Your task to perform on an android device: turn off javascript in the chrome app Image 0: 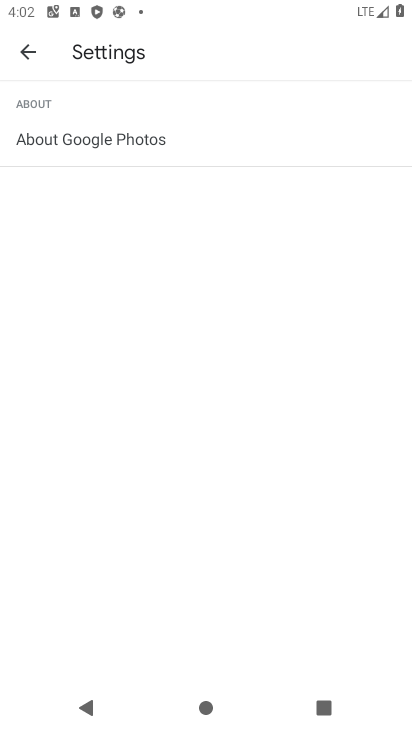
Step 0: press home button
Your task to perform on an android device: turn off javascript in the chrome app Image 1: 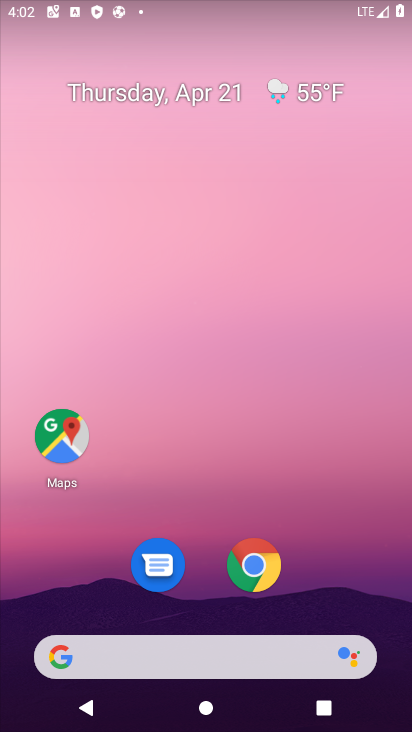
Step 1: click (254, 558)
Your task to perform on an android device: turn off javascript in the chrome app Image 2: 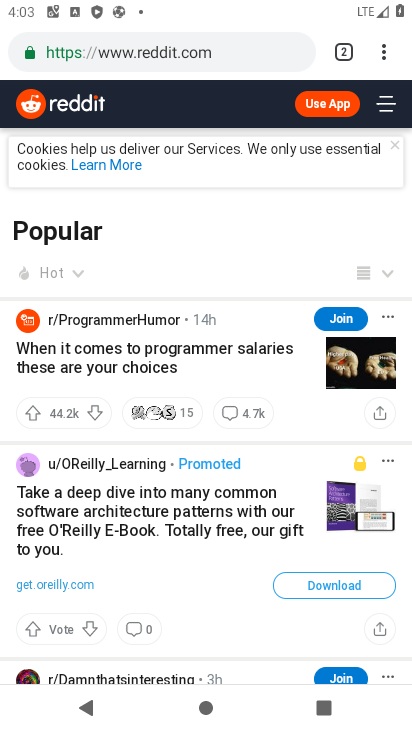
Step 2: click (384, 51)
Your task to perform on an android device: turn off javascript in the chrome app Image 3: 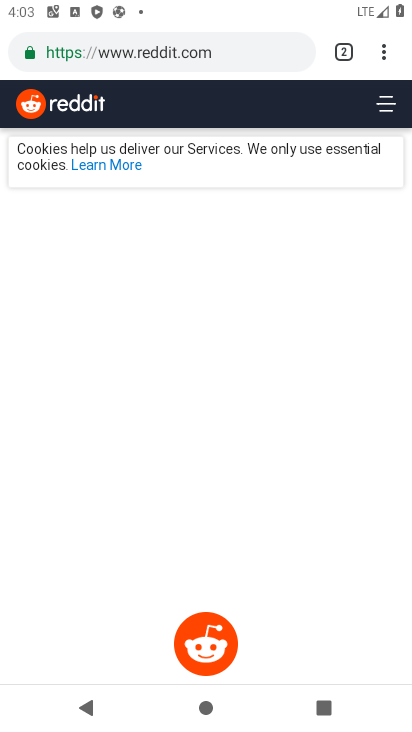
Step 3: click (384, 51)
Your task to perform on an android device: turn off javascript in the chrome app Image 4: 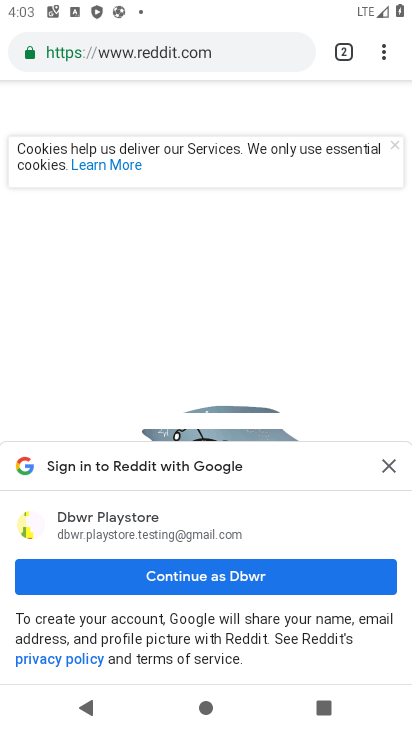
Step 4: click (384, 51)
Your task to perform on an android device: turn off javascript in the chrome app Image 5: 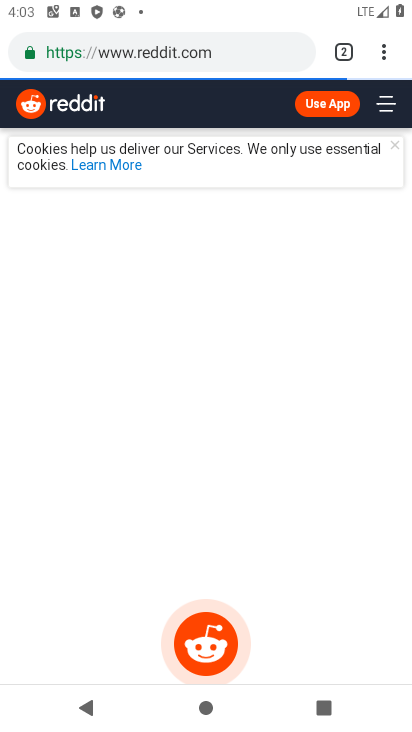
Step 5: click (384, 61)
Your task to perform on an android device: turn off javascript in the chrome app Image 6: 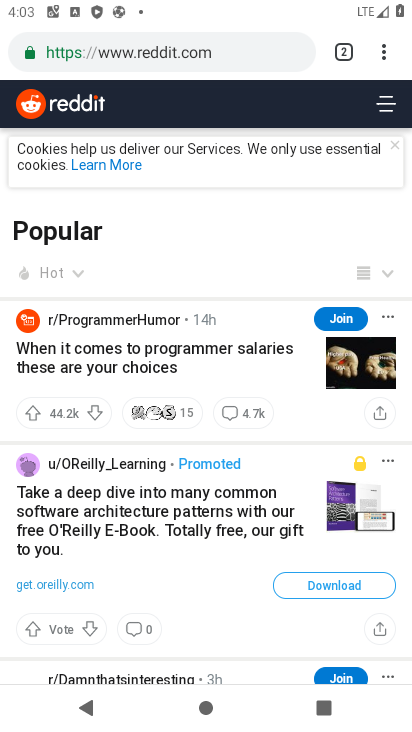
Step 6: click (384, 61)
Your task to perform on an android device: turn off javascript in the chrome app Image 7: 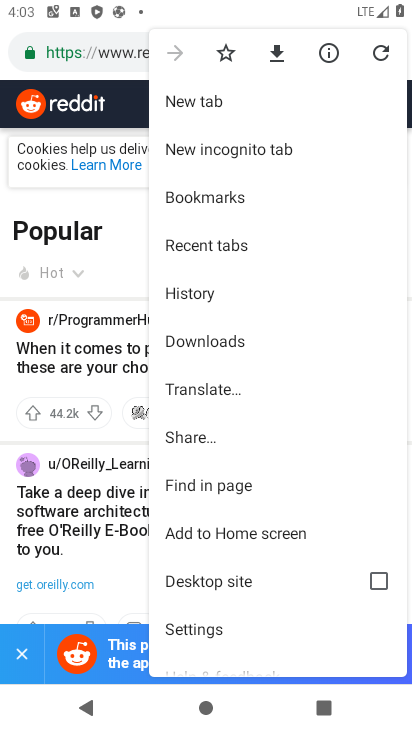
Step 7: click (294, 93)
Your task to perform on an android device: turn off javascript in the chrome app Image 8: 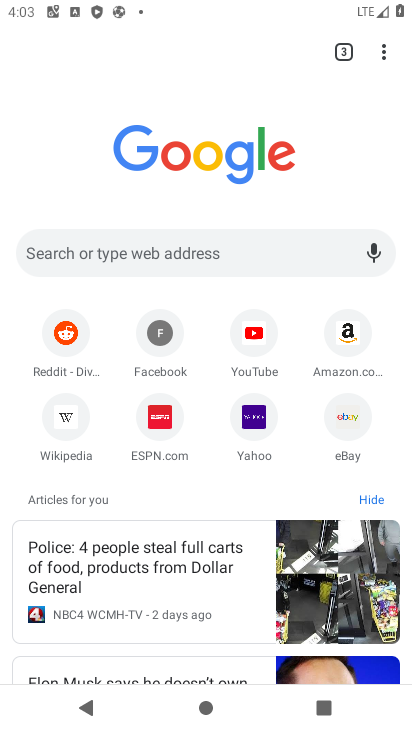
Step 8: click (385, 52)
Your task to perform on an android device: turn off javascript in the chrome app Image 9: 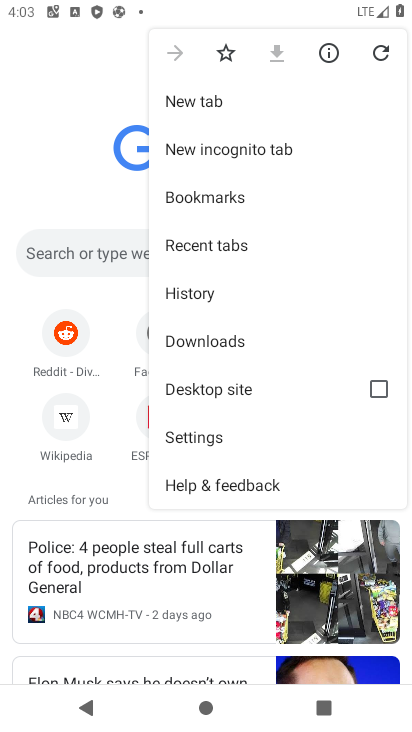
Step 9: click (202, 428)
Your task to perform on an android device: turn off javascript in the chrome app Image 10: 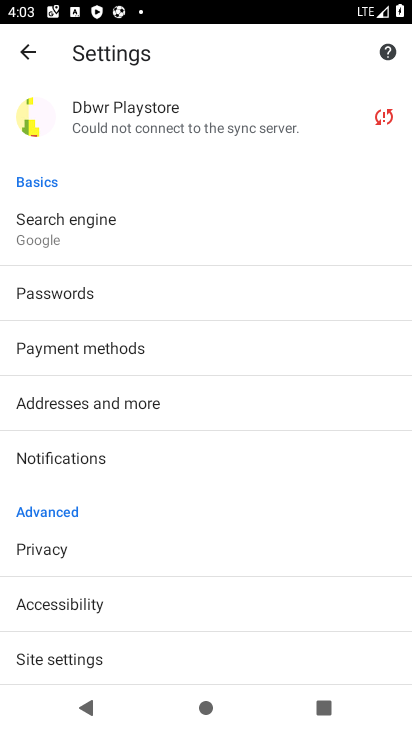
Step 10: click (200, 649)
Your task to perform on an android device: turn off javascript in the chrome app Image 11: 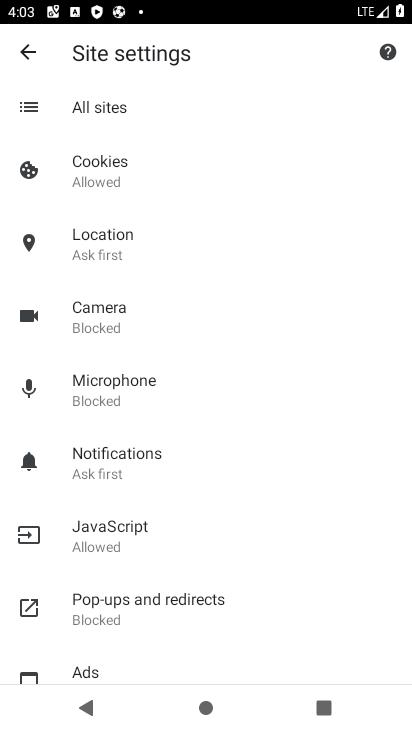
Step 11: click (120, 536)
Your task to perform on an android device: turn off javascript in the chrome app Image 12: 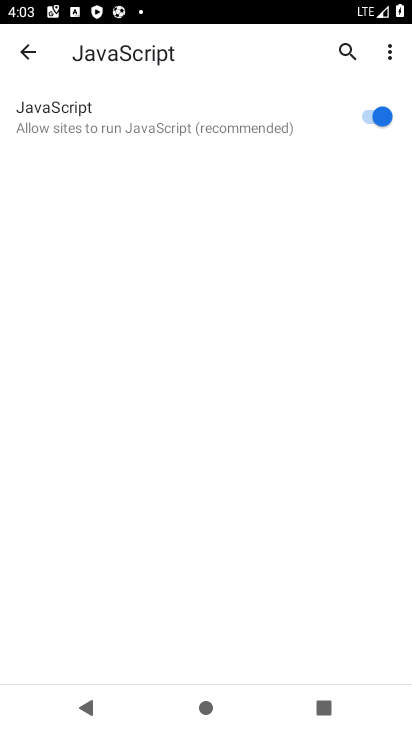
Step 12: click (364, 109)
Your task to perform on an android device: turn off javascript in the chrome app Image 13: 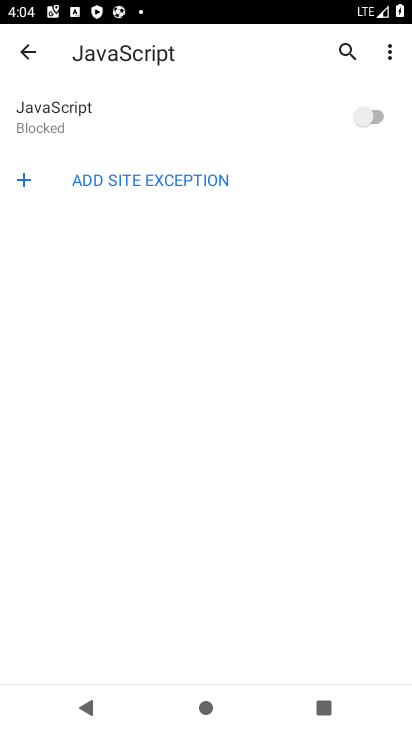
Step 13: task complete